Your task to perform on an android device: open a new tab in the chrome app Image 0: 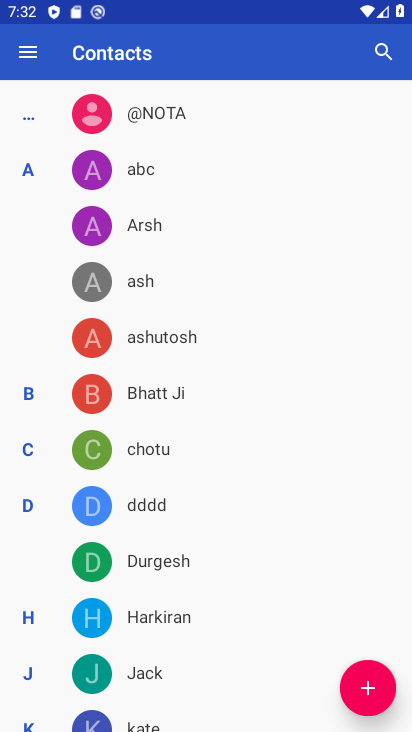
Step 0: press home button
Your task to perform on an android device: open a new tab in the chrome app Image 1: 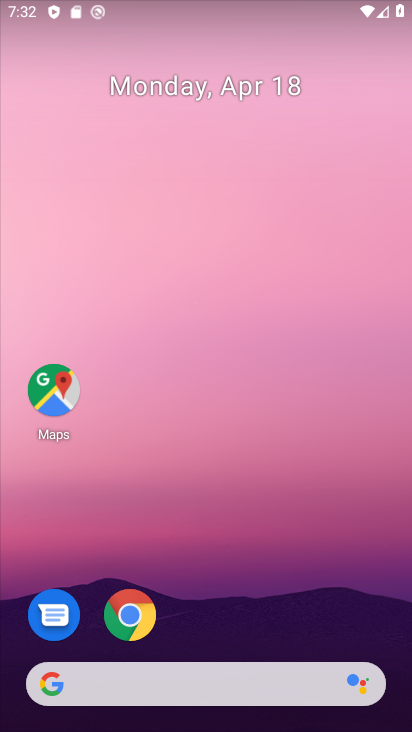
Step 1: click (136, 614)
Your task to perform on an android device: open a new tab in the chrome app Image 2: 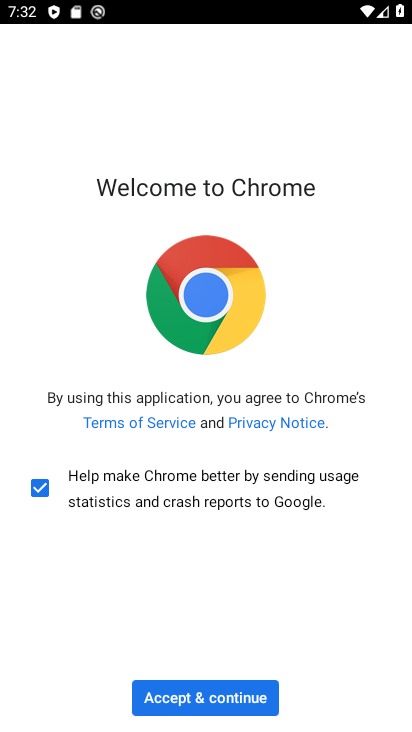
Step 2: click (224, 694)
Your task to perform on an android device: open a new tab in the chrome app Image 3: 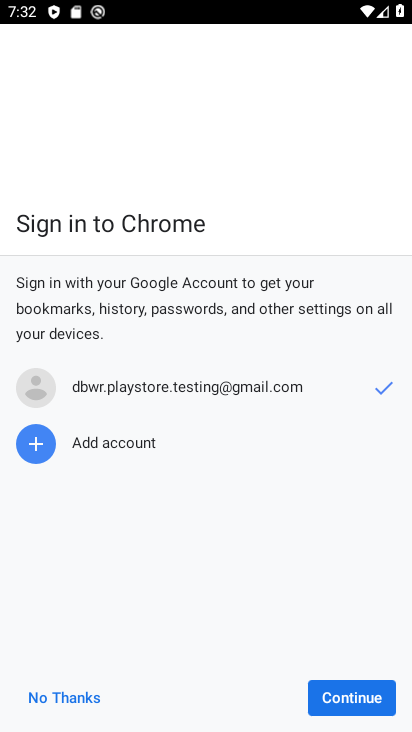
Step 3: click (330, 694)
Your task to perform on an android device: open a new tab in the chrome app Image 4: 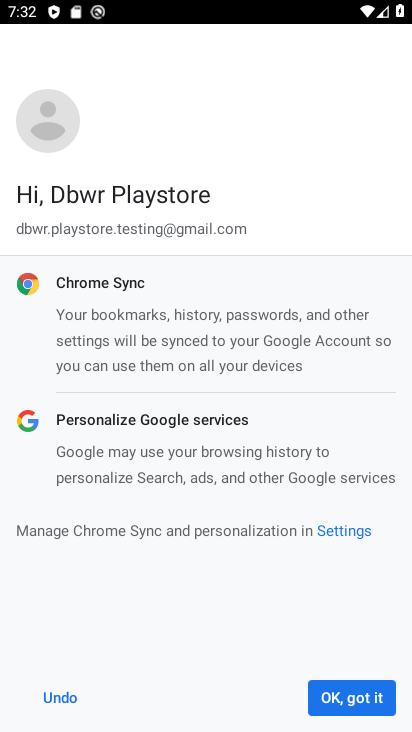
Step 4: click (330, 694)
Your task to perform on an android device: open a new tab in the chrome app Image 5: 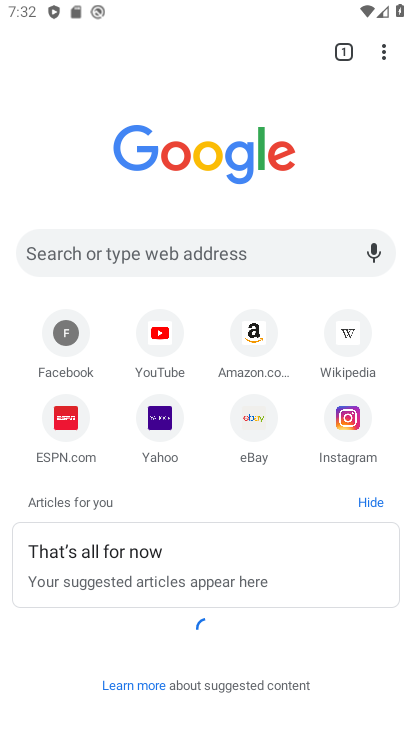
Step 5: click (382, 49)
Your task to perform on an android device: open a new tab in the chrome app Image 6: 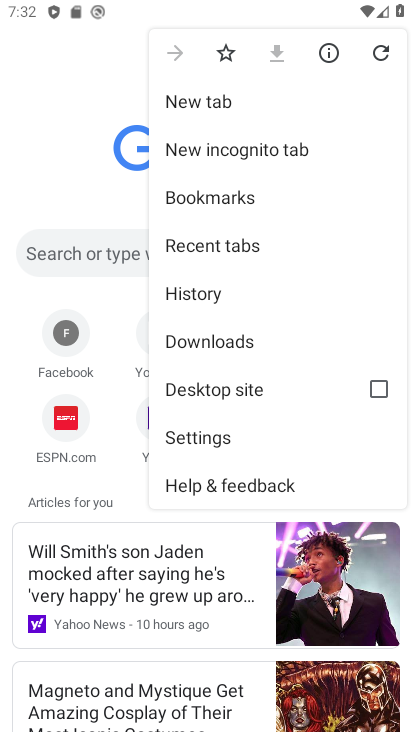
Step 6: click (329, 95)
Your task to perform on an android device: open a new tab in the chrome app Image 7: 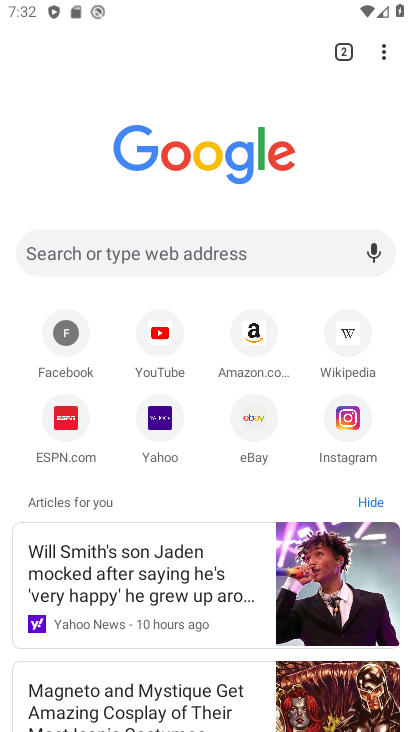
Step 7: task complete